Your task to perform on an android device: check android version Image 0: 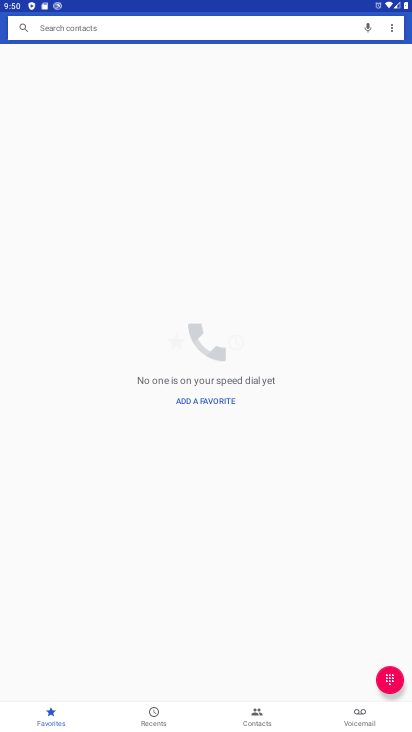
Step 0: press home button
Your task to perform on an android device: check android version Image 1: 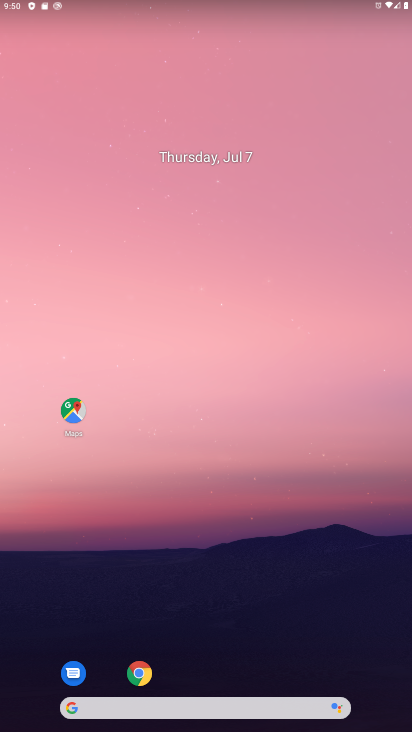
Step 1: drag from (227, 645) to (136, 0)
Your task to perform on an android device: check android version Image 2: 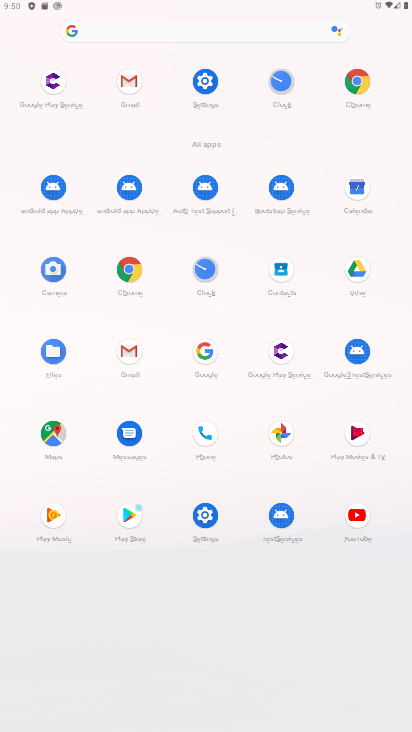
Step 2: click (204, 565)
Your task to perform on an android device: check android version Image 3: 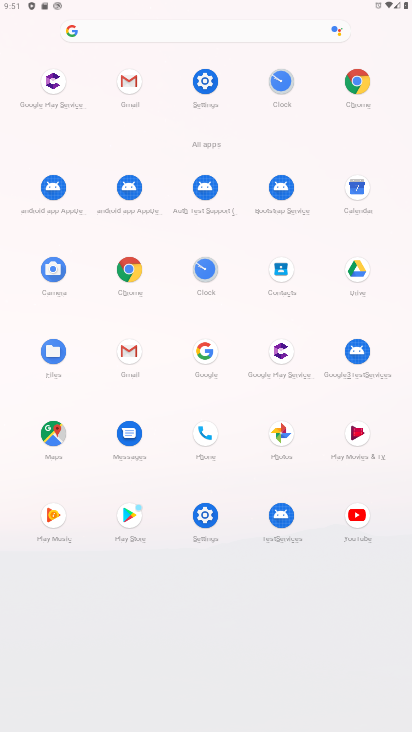
Step 3: click (208, 529)
Your task to perform on an android device: check android version Image 4: 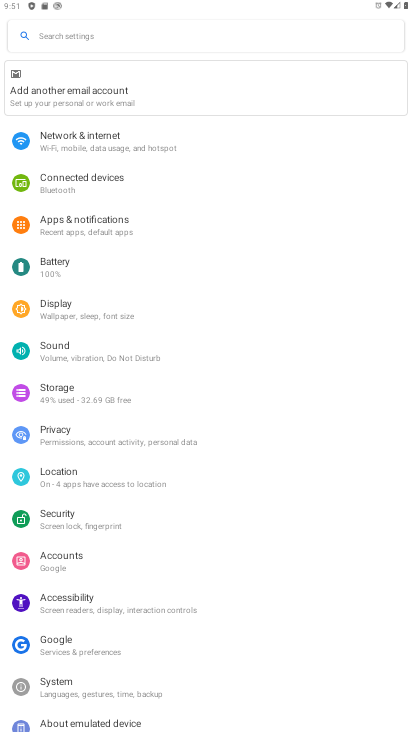
Step 4: drag from (101, 672) to (114, 513)
Your task to perform on an android device: check android version Image 5: 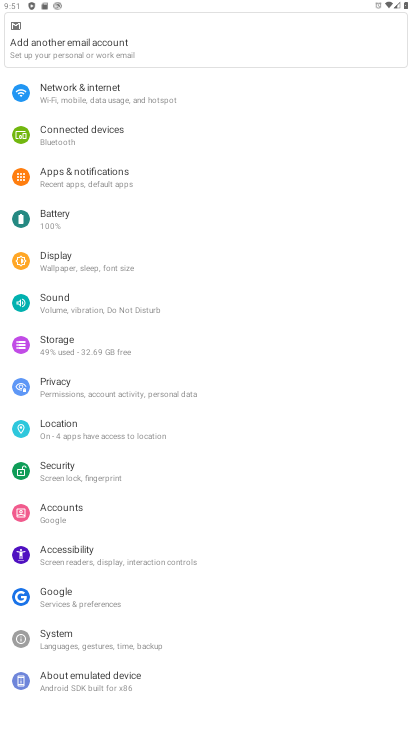
Step 5: click (80, 685)
Your task to perform on an android device: check android version Image 6: 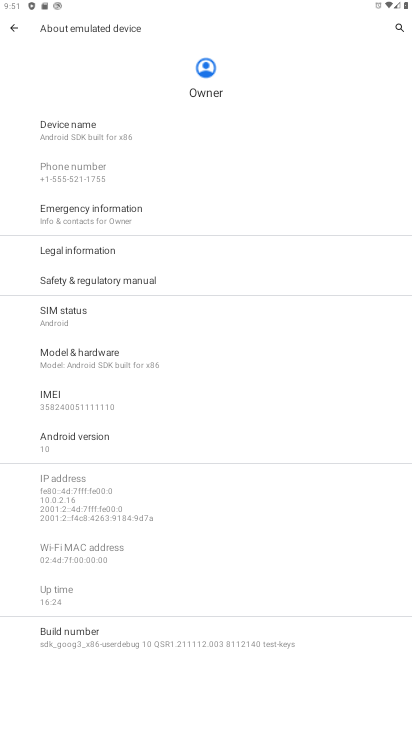
Step 6: click (90, 456)
Your task to perform on an android device: check android version Image 7: 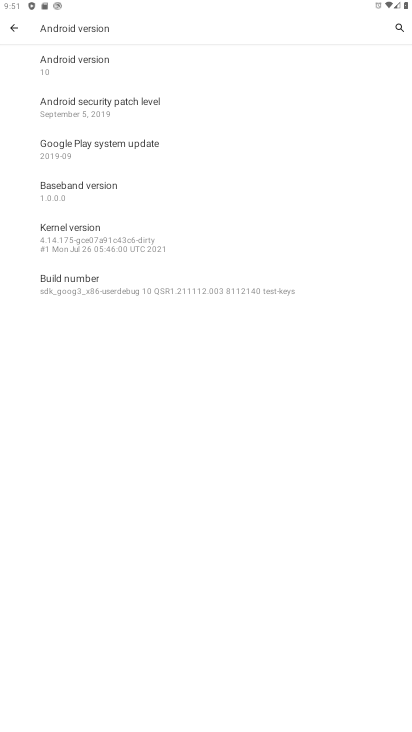
Step 7: click (100, 68)
Your task to perform on an android device: check android version Image 8: 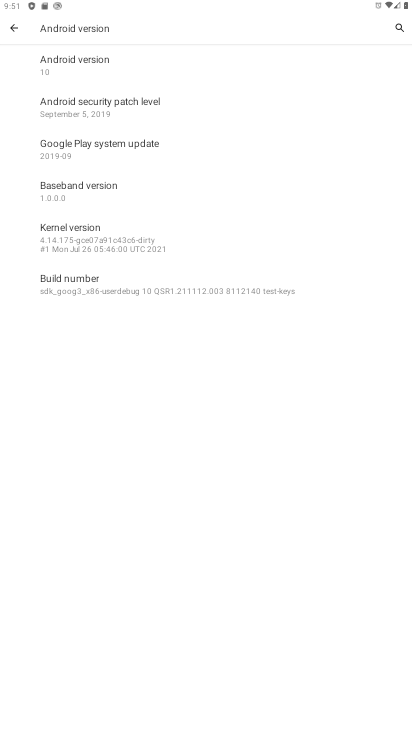
Step 8: task complete